Your task to perform on an android device: Check the news Image 0: 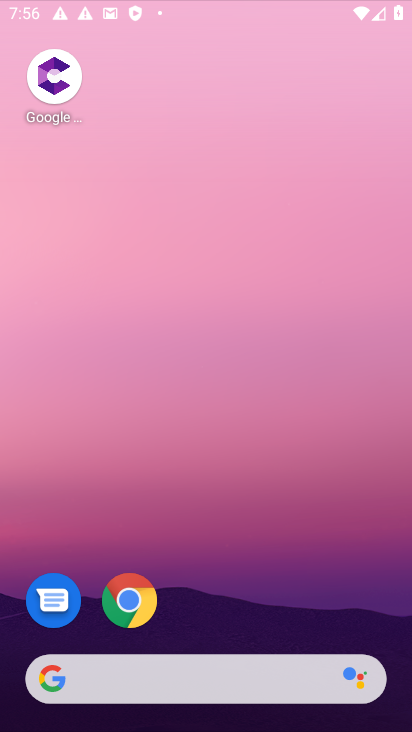
Step 0: press home button
Your task to perform on an android device: Check the news Image 1: 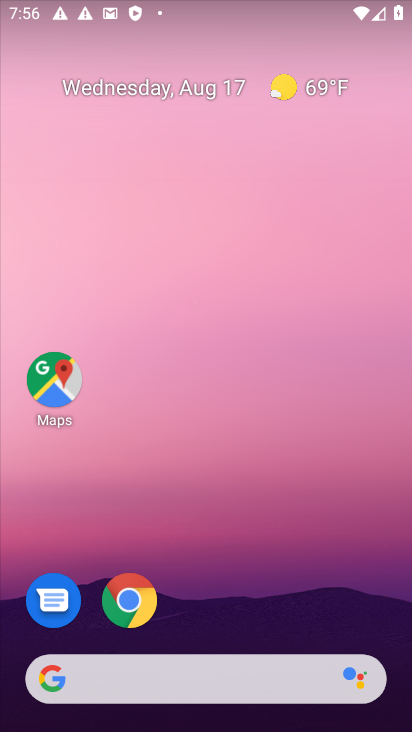
Step 1: click (51, 680)
Your task to perform on an android device: Check the news Image 2: 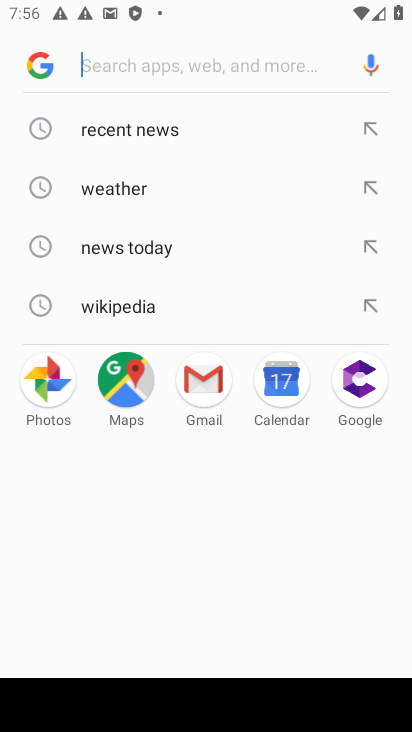
Step 2: click (164, 50)
Your task to perform on an android device: Check the news Image 3: 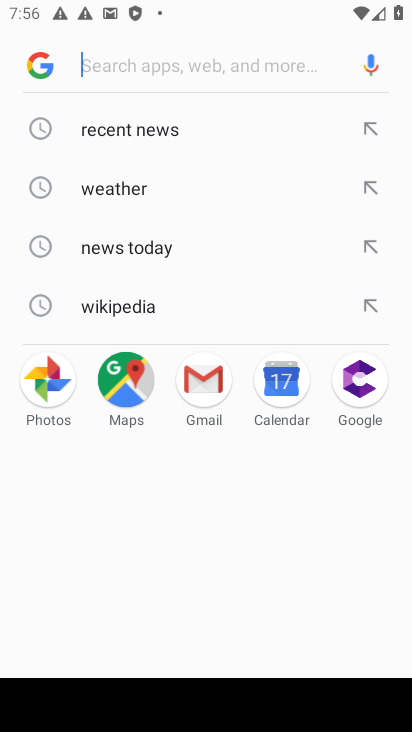
Step 3: type "news"
Your task to perform on an android device: Check the news Image 4: 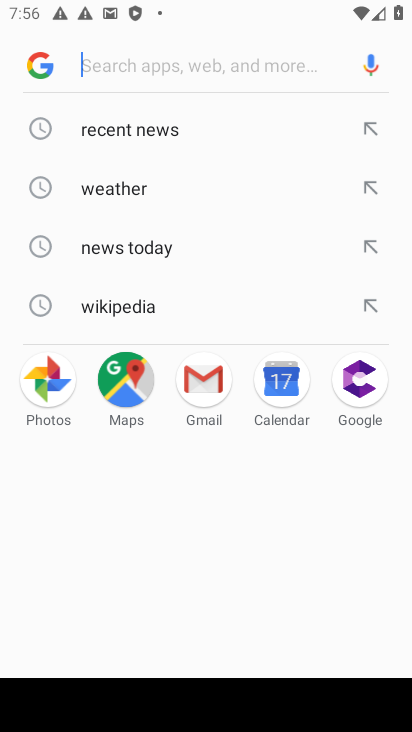
Step 4: click (164, 50)
Your task to perform on an android device: Check the news Image 5: 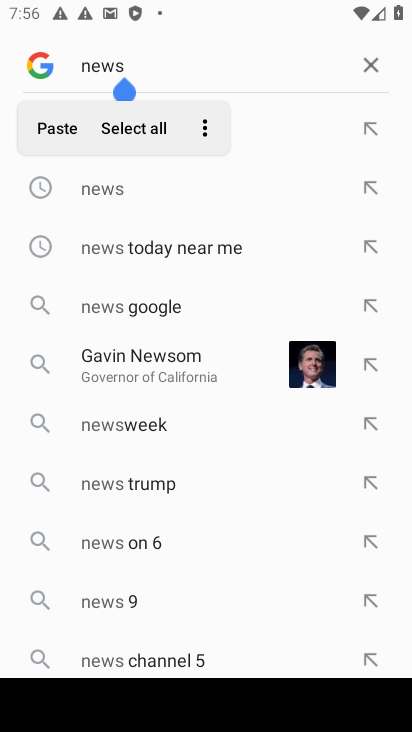
Step 5: click (99, 188)
Your task to perform on an android device: Check the news Image 6: 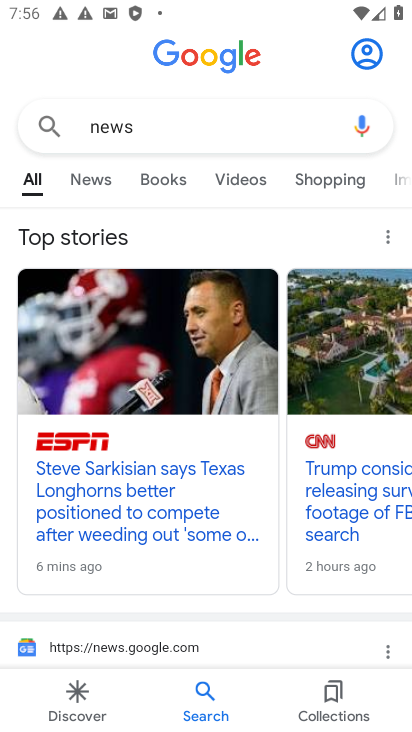
Step 6: task complete